Your task to perform on an android device: Open Chrome and go to the settings page Image 0: 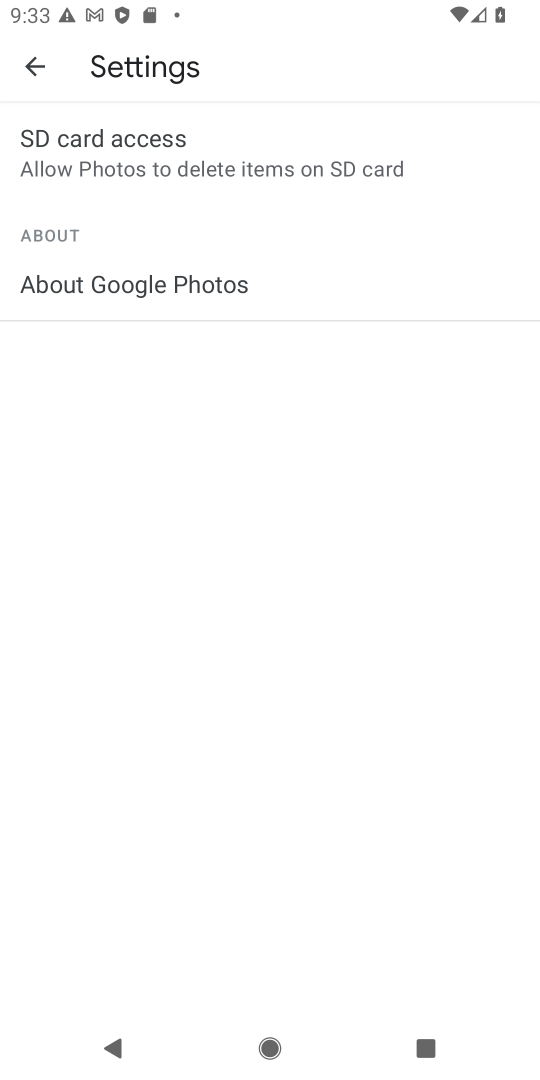
Step 0: press home button
Your task to perform on an android device: Open Chrome and go to the settings page Image 1: 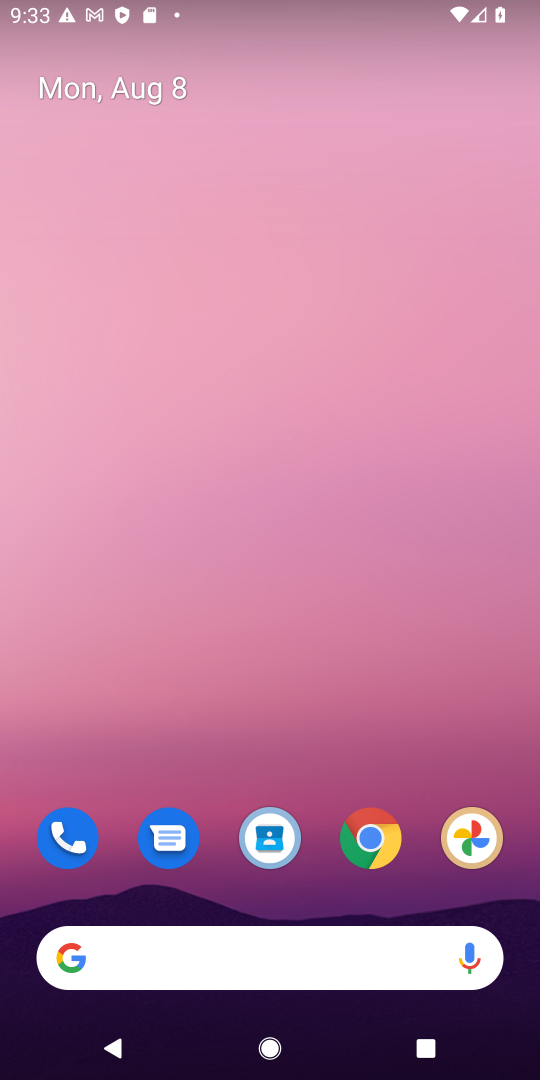
Step 1: drag from (282, 697) to (252, 3)
Your task to perform on an android device: Open Chrome and go to the settings page Image 2: 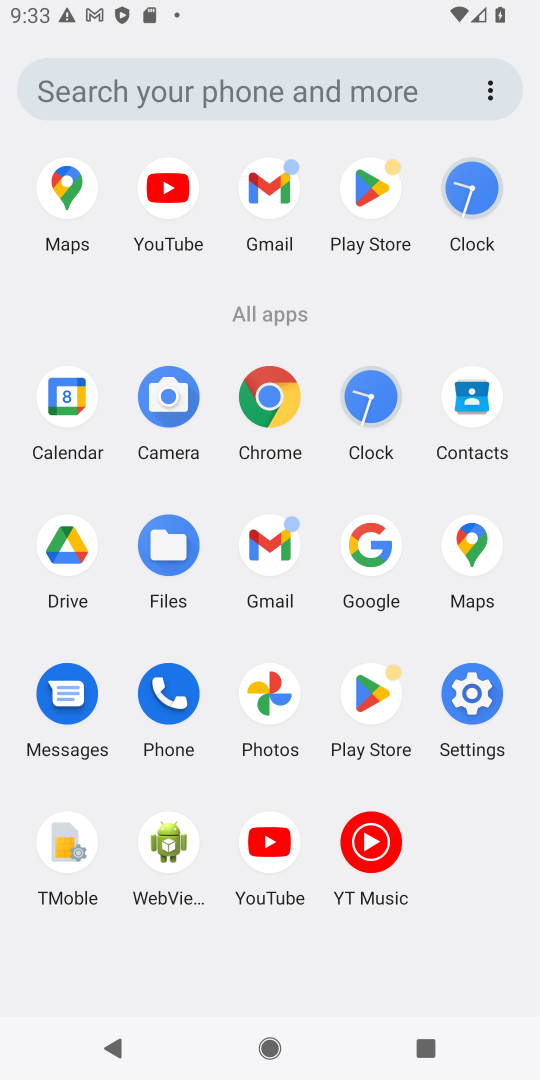
Step 2: click (262, 388)
Your task to perform on an android device: Open Chrome and go to the settings page Image 3: 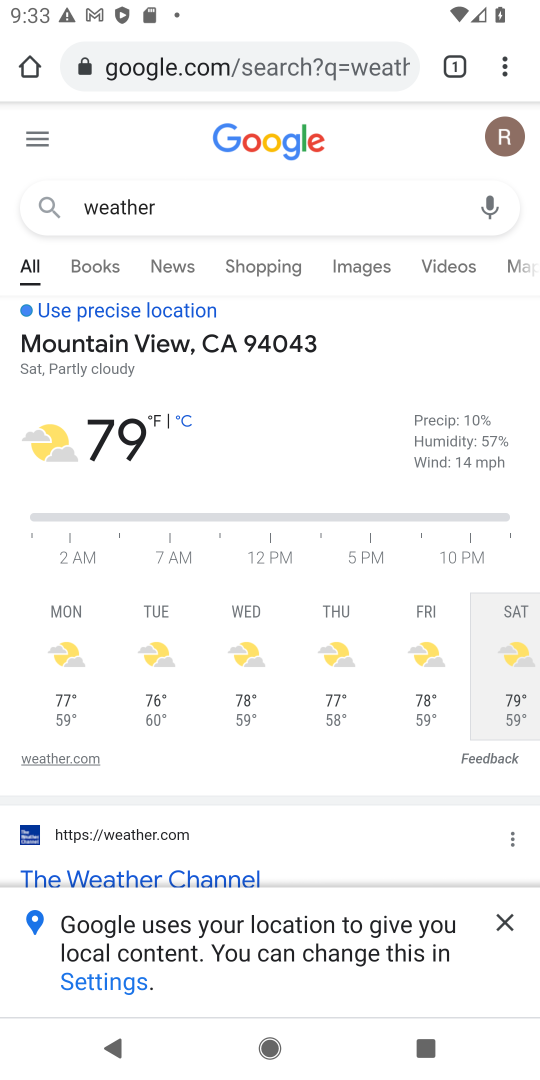
Step 3: task complete